Your task to perform on an android device: turn on the 12-hour format for clock Image 0: 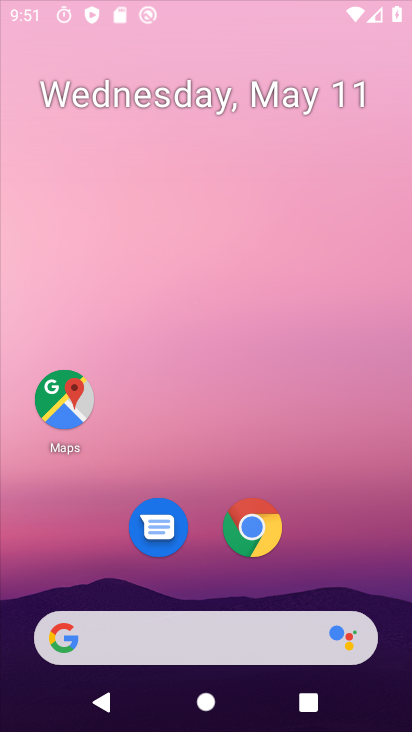
Step 0: drag from (290, 445) to (322, 228)
Your task to perform on an android device: turn on the 12-hour format for clock Image 1: 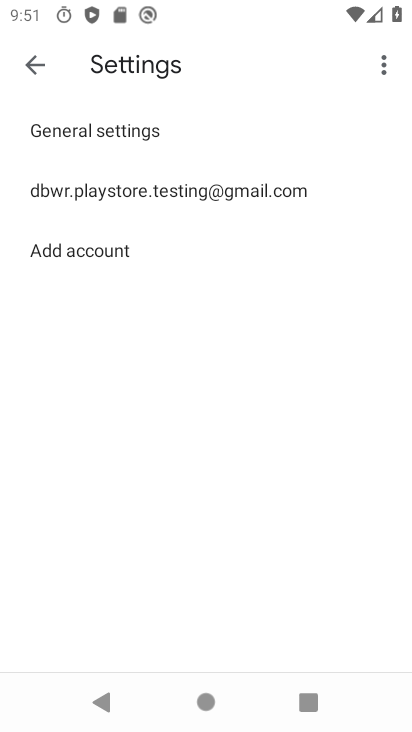
Step 1: press home button
Your task to perform on an android device: turn on the 12-hour format for clock Image 2: 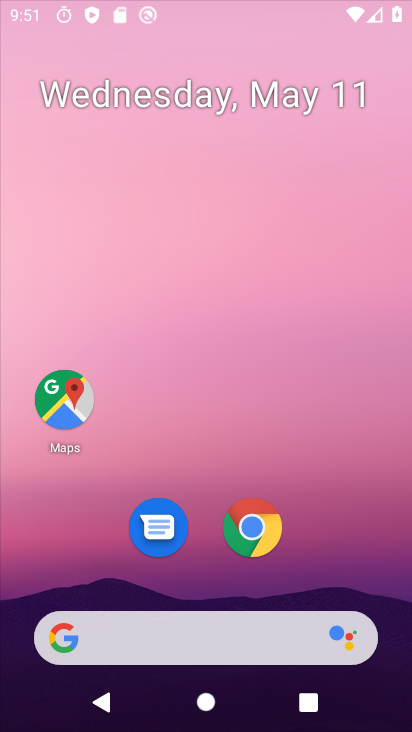
Step 2: drag from (240, 638) to (241, 217)
Your task to perform on an android device: turn on the 12-hour format for clock Image 3: 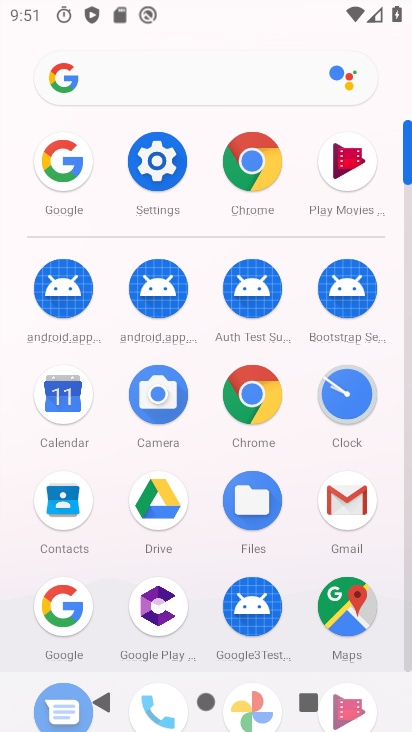
Step 3: click (342, 415)
Your task to perform on an android device: turn on the 12-hour format for clock Image 4: 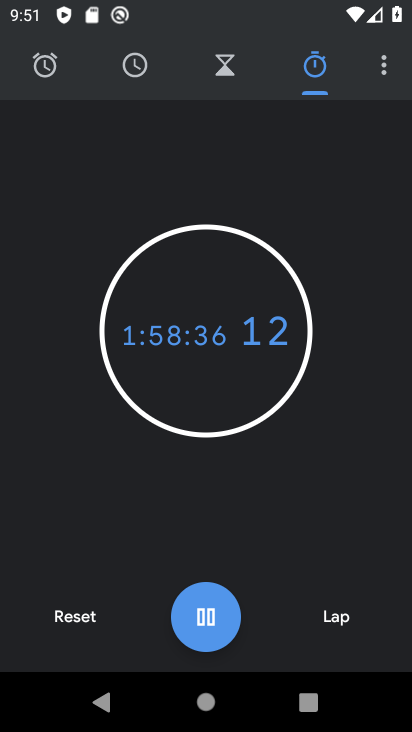
Step 4: click (381, 82)
Your task to perform on an android device: turn on the 12-hour format for clock Image 5: 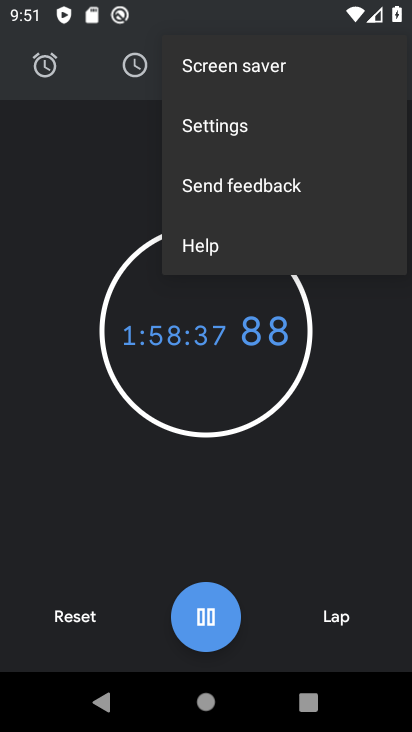
Step 5: click (285, 149)
Your task to perform on an android device: turn on the 12-hour format for clock Image 6: 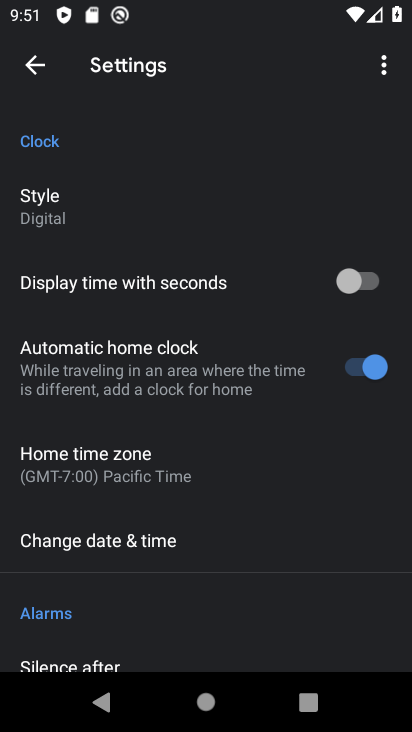
Step 6: click (232, 531)
Your task to perform on an android device: turn on the 12-hour format for clock Image 7: 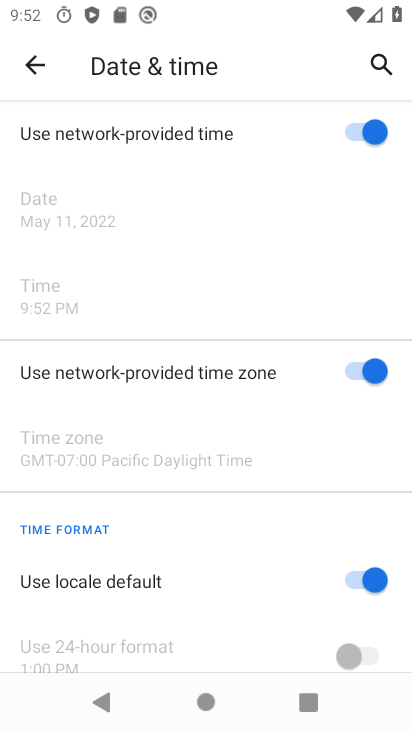
Step 7: task complete